Your task to perform on an android device: open app "Lyft - Rideshare, Bikes, Scooters & Transit" Image 0: 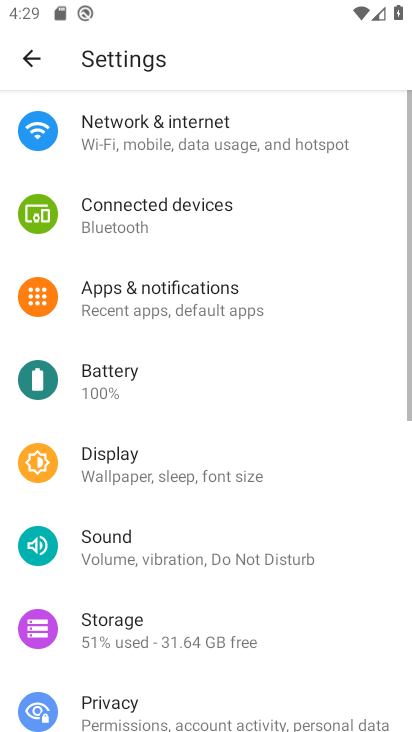
Step 0: press home button
Your task to perform on an android device: open app "Lyft - Rideshare, Bikes, Scooters & Transit" Image 1: 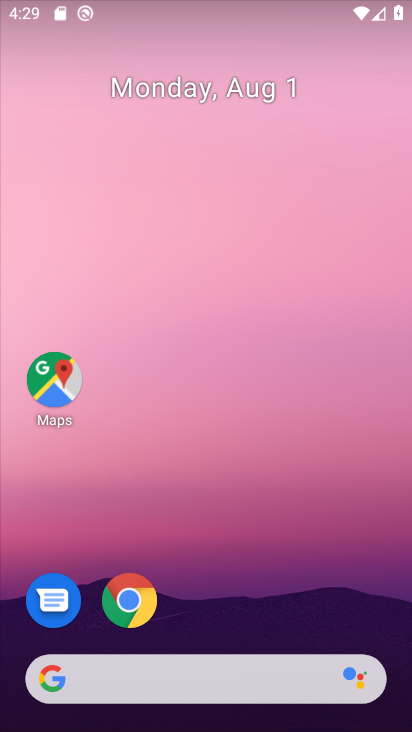
Step 1: drag from (266, 617) to (222, 36)
Your task to perform on an android device: open app "Lyft - Rideshare, Bikes, Scooters & Transit" Image 2: 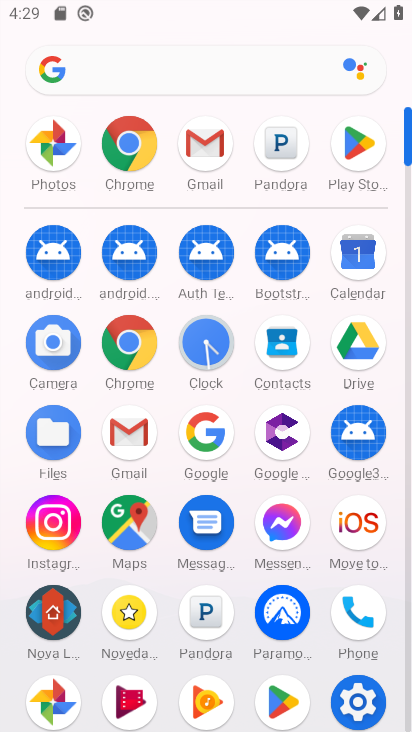
Step 2: click (359, 153)
Your task to perform on an android device: open app "Lyft - Rideshare, Bikes, Scooters & Transit" Image 3: 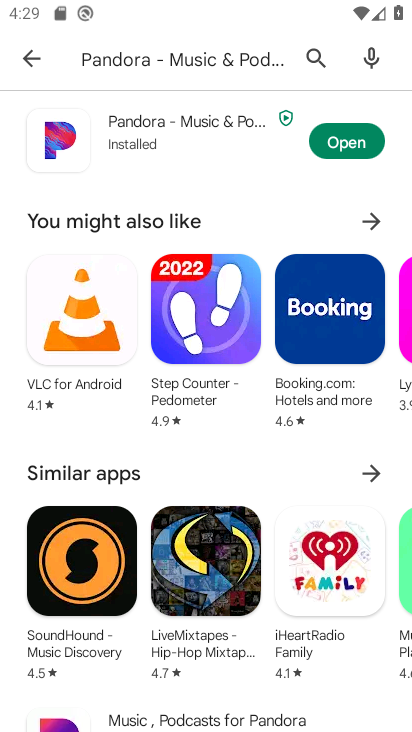
Step 3: click (175, 62)
Your task to perform on an android device: open app "Lyft - Rideshare, Bikes, Scooters & Transit" Image 4: 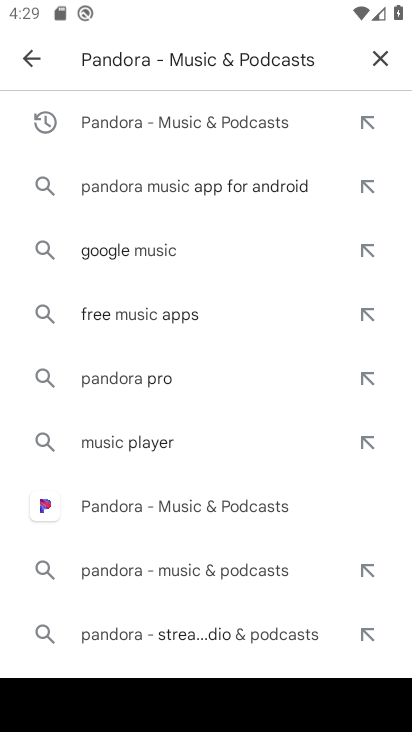
Step 4: click (374, 53)
Your task to perform on an android device: open app "Lyft - Rideshare, Bikes, Scooters & Transit" Image 5: 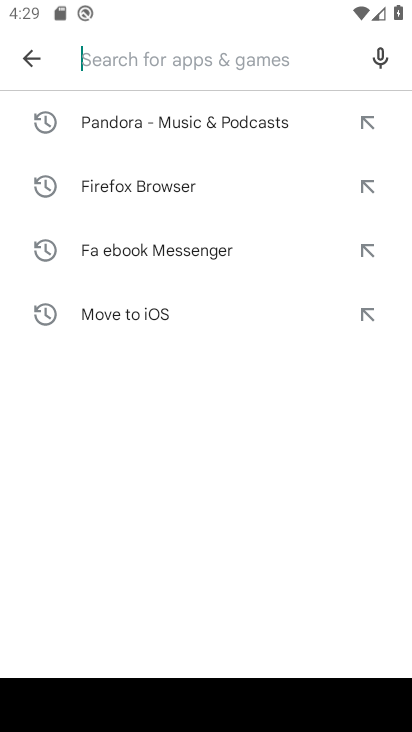
Step 5: type "Lyft - Rideshare, Bikes, Scooters & Transit"
Your task to perform on an android device: open app "Lyft - Rideshare, Bikes, Scooters & Transit" Image 6: 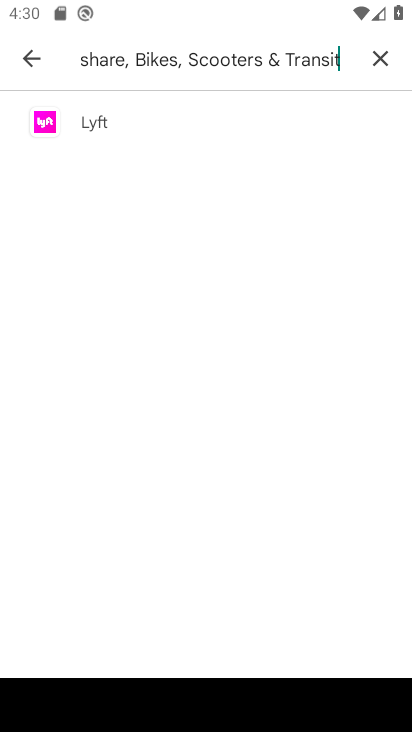
Step 6: press enter
Your task to perform on an android device: open app "Lyft - Rideshare, Bikes, Scooters & Transit" Image 7: 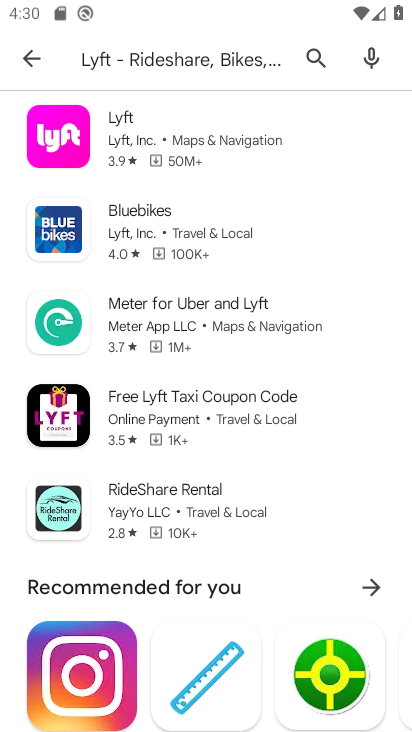
Step 7: click (228, 153)
Your task to perform on an android device: open app "Lyft - Rideshare, Bikes, Scooters & Transit" Image 8: 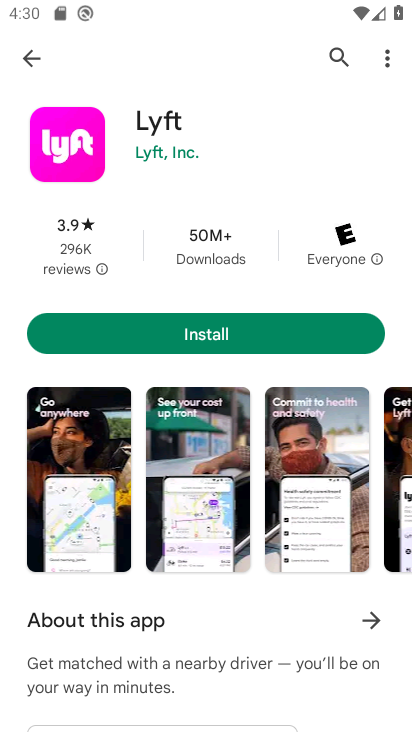
Step 8: task complete